Your task to perform on an android device: turn off notifications settings in the gmail app Image 0: 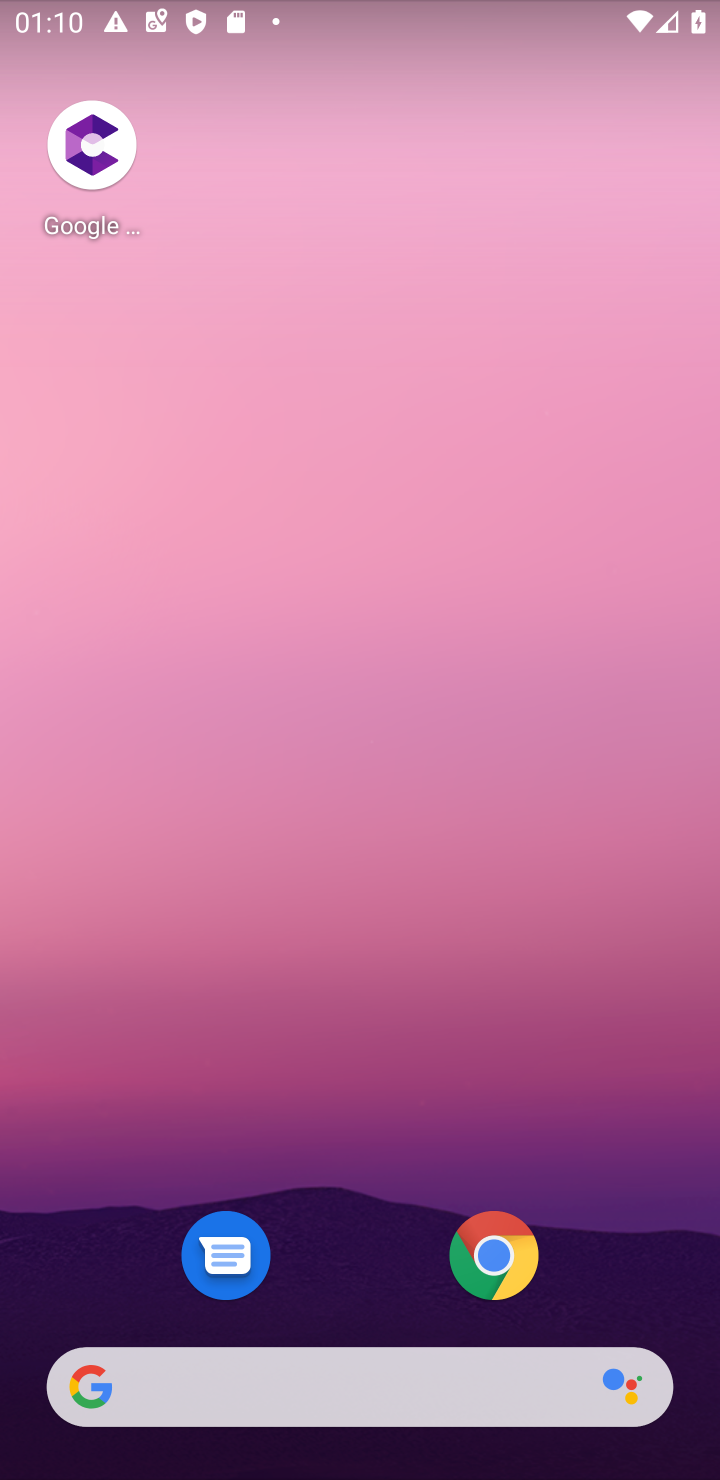
Step 0: drag from (693, 1274) to (472, 216)
Your task to perform on an android device: turn off notifications settings in the gmail app Image 1: 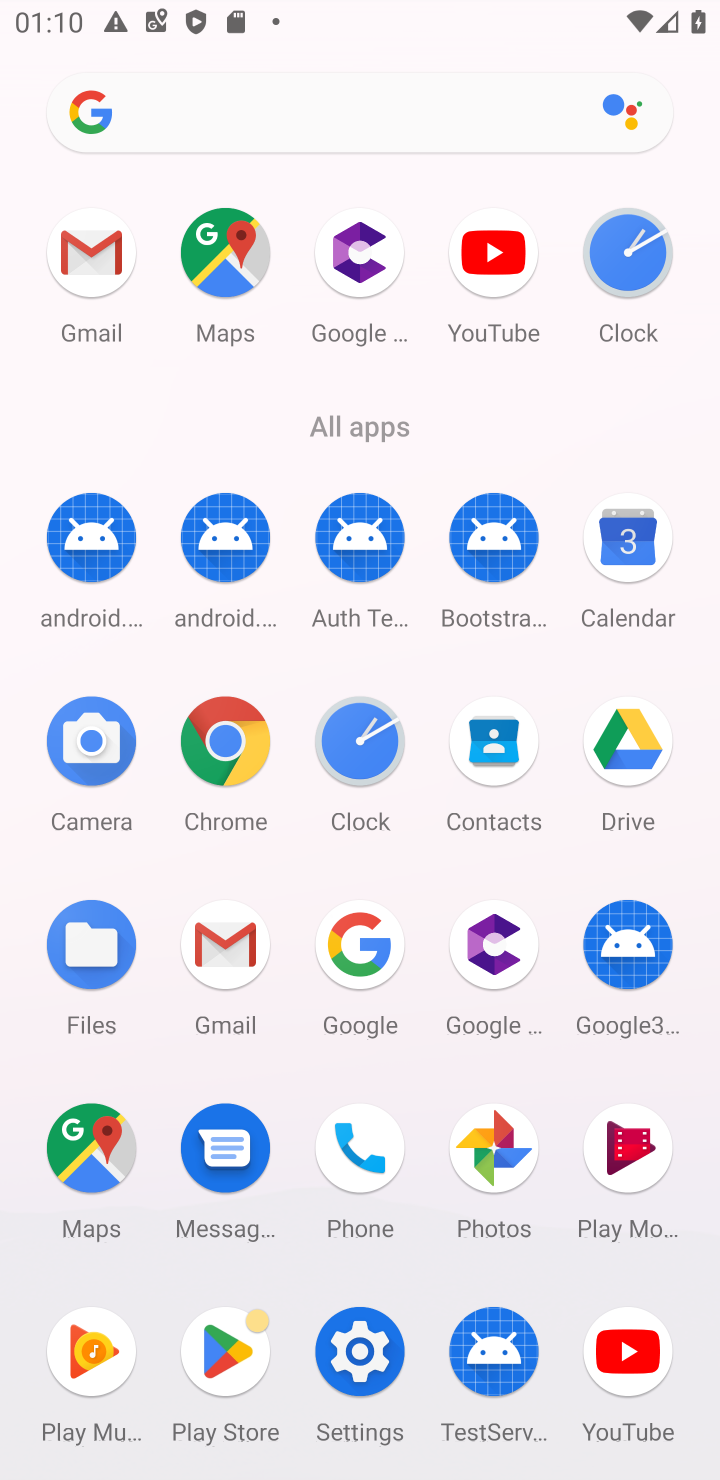
Step 1: click (120, 275)
Your task to perform on an android device: turn off notifications settings in the gmail app Image 2: 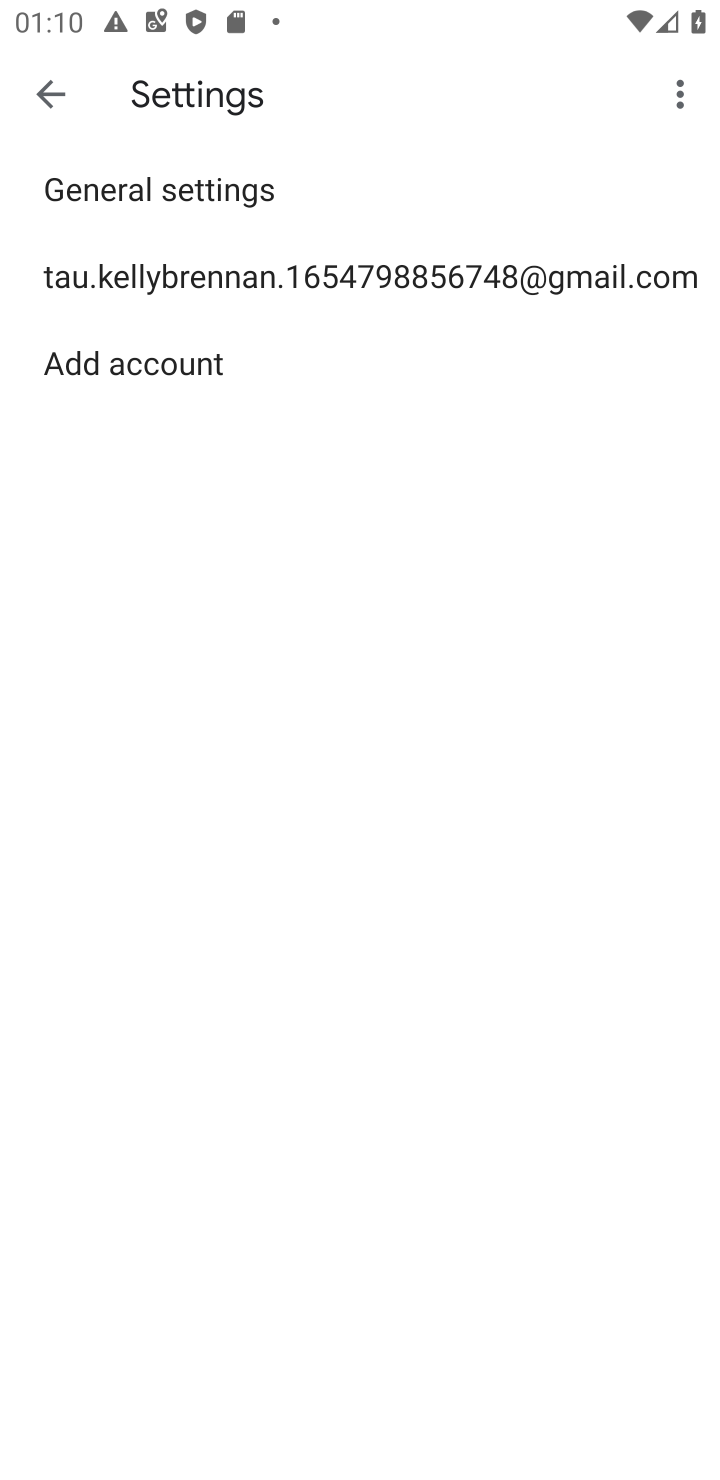
Step 2: click (267, 292)
Your task to perform on an android device: turn off notifications settings in the gmail app Image 3: 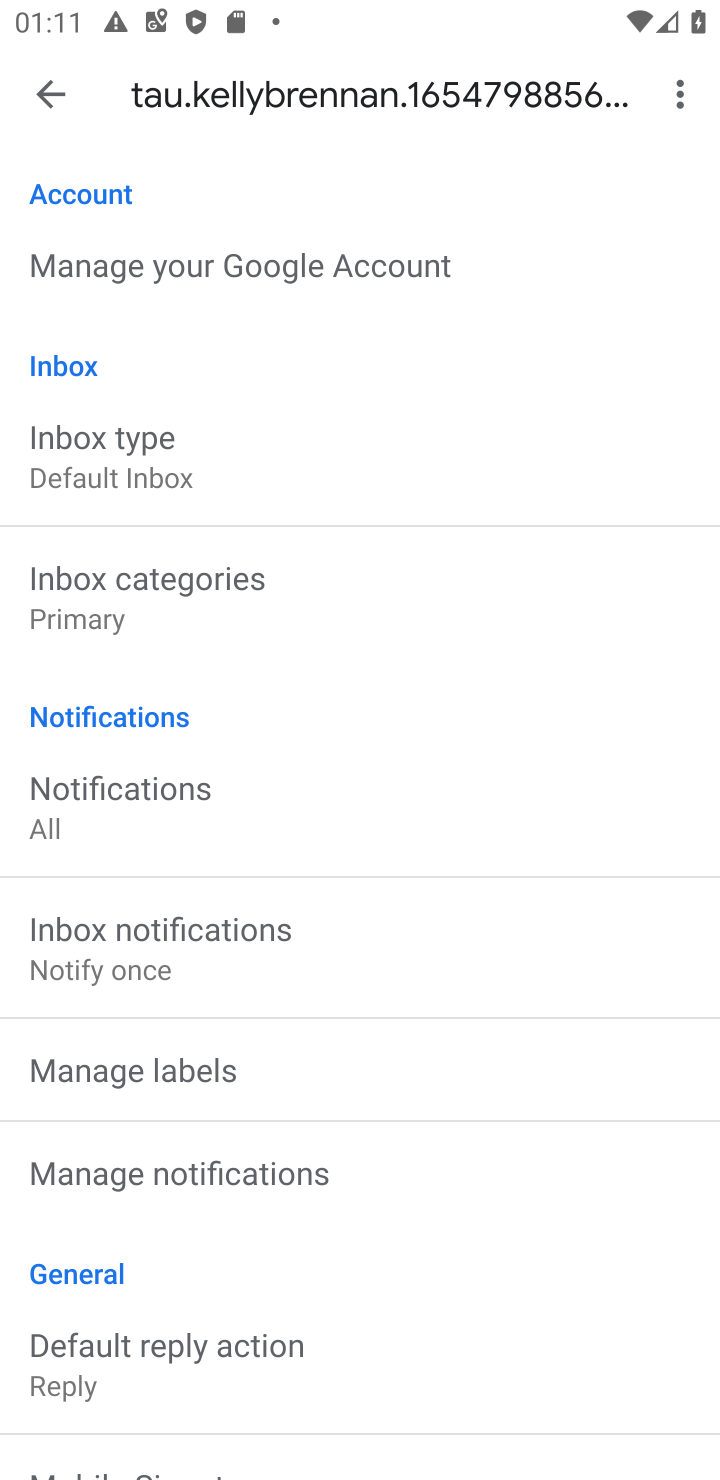
Step 3: click (523, 1206)
Your task to perform on an android device: turn off notifications settings in the gmail app Image 4: 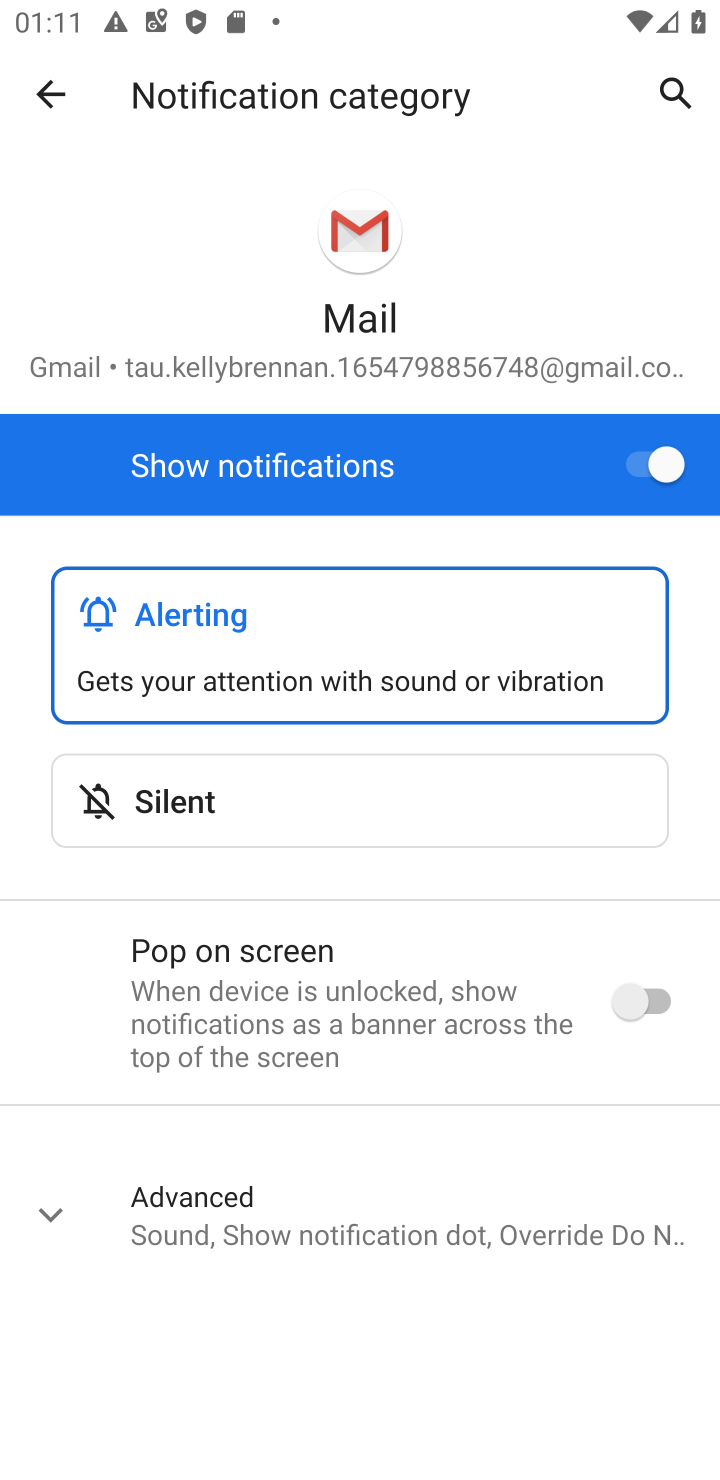
Step 4: task complete